Your task to perform on an android device: What's on my calendar tomorrow? Image 0: 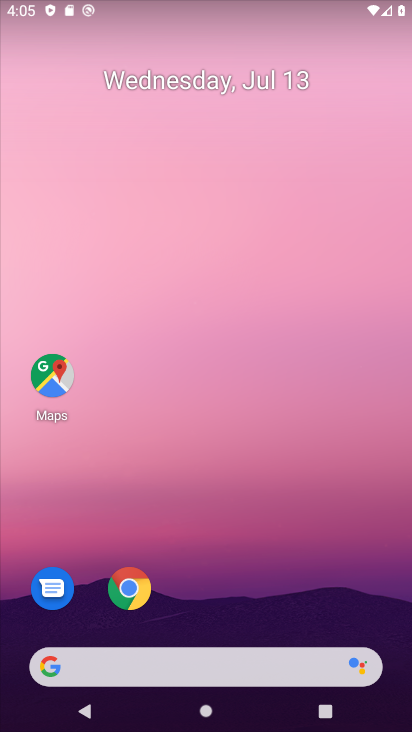
Step 0: drag from (9, 702) to (120, 235)
Your task to perform on an android device: What's on my calendar tomorrow? Image 1: 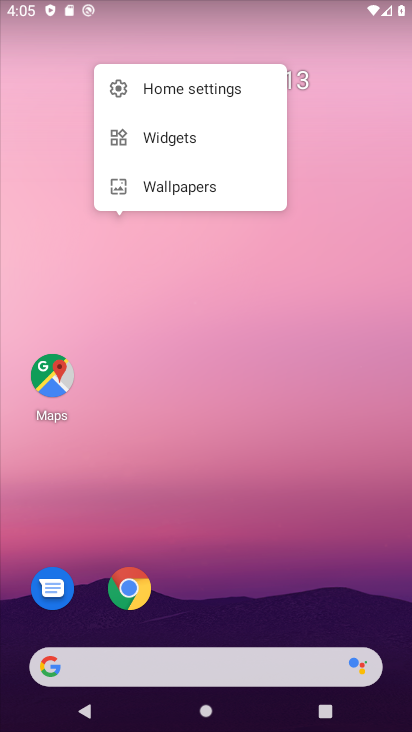
Step 1: drag from (39, 694) to (159, 63)
Your task to perform on an android device: What's on my calendar tomorrow? Image 2: 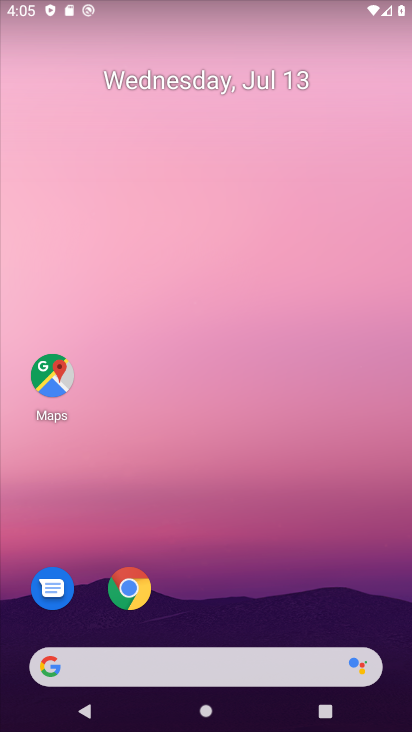
Step 2: drag from (41, 699) to (120, 0)
Your task to perform on an android device: What's on my calendar tomorrow? Image 3: 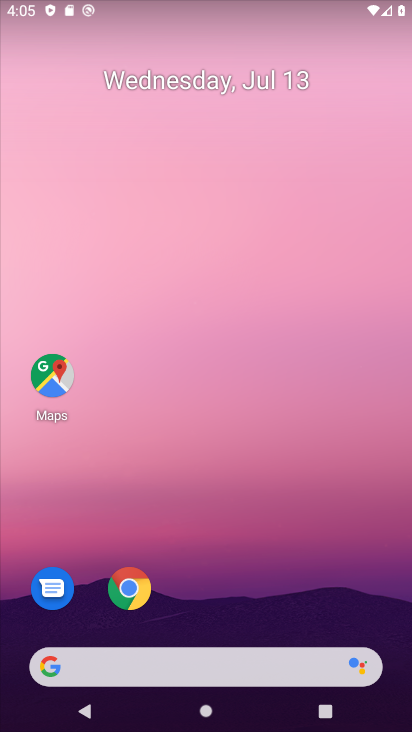
Step 3: drag from (35, 606) to (76, 191)
Your task to perform on an android device: What's on my calendar tomorrow? Image 4: 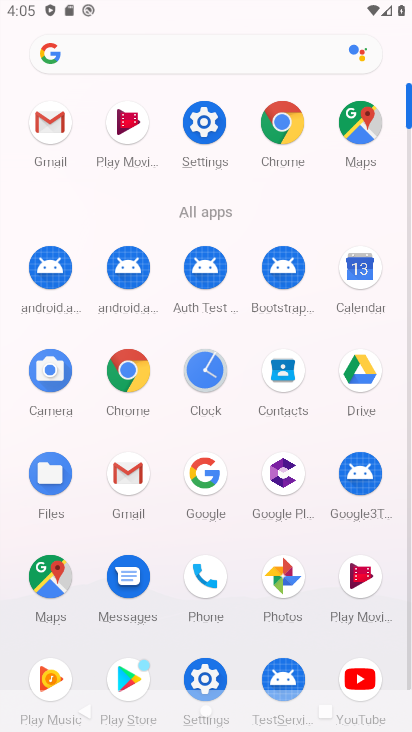
Step 4: click (349, 273)
Your task to perform on an android device: What's on my calendar tomorrow? Image 5: 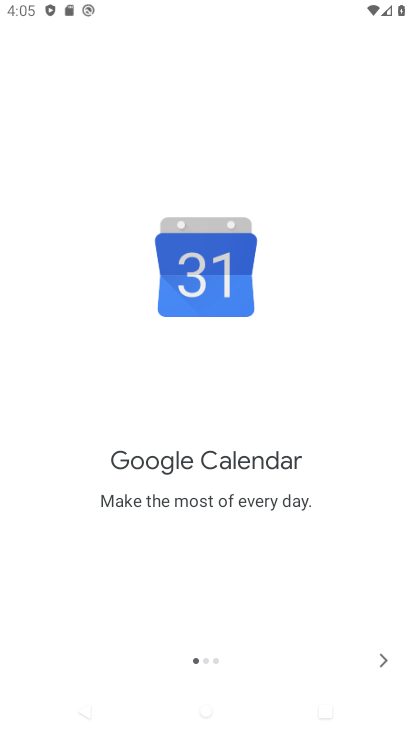
Step 5: click (379, 661)
Your task to perform on an android device: What's on my calendar tomorrow? Image 6: 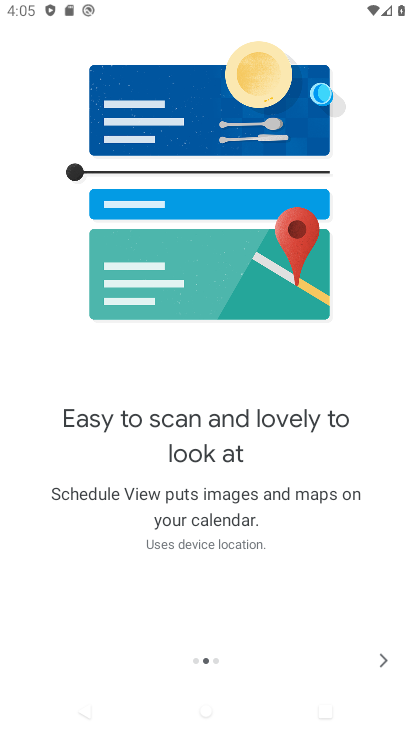
Step 6: click (381, 664)
Your task to perform on an android device: What's on my calendar tomorrow? Image 7: 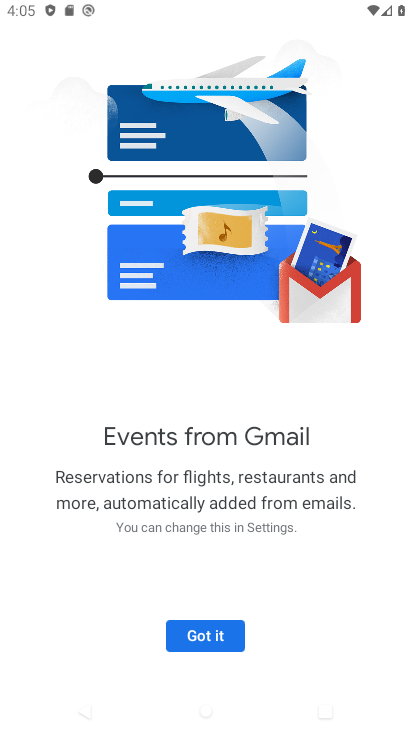
Step 7: click (205, 633)
Your task to perform on an android device: What's on my calendar tomorrow? Image 8: 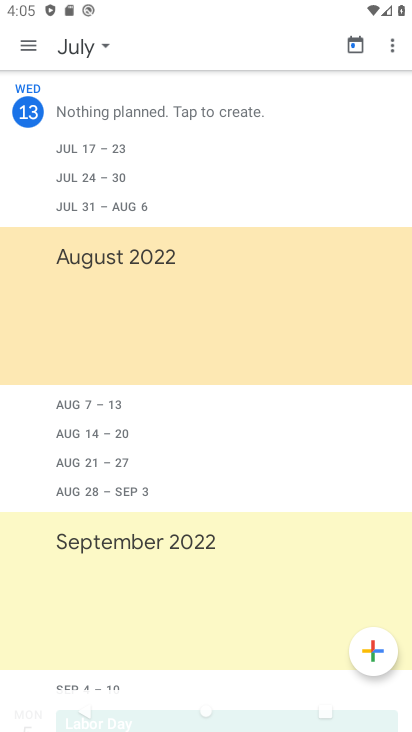
Step 8: click (83, 56)
Your task to perform on an android device: What's on my calendar tomorrow? Image 9: 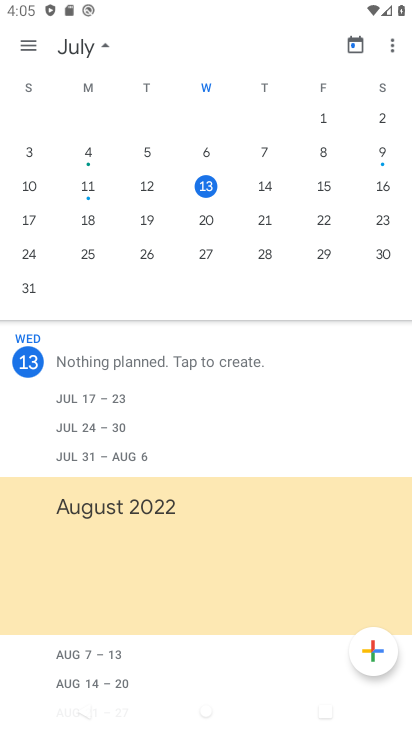
Step 9: task complete